Your task to perform on an android device: check the backup settings in the google photos Image 0: 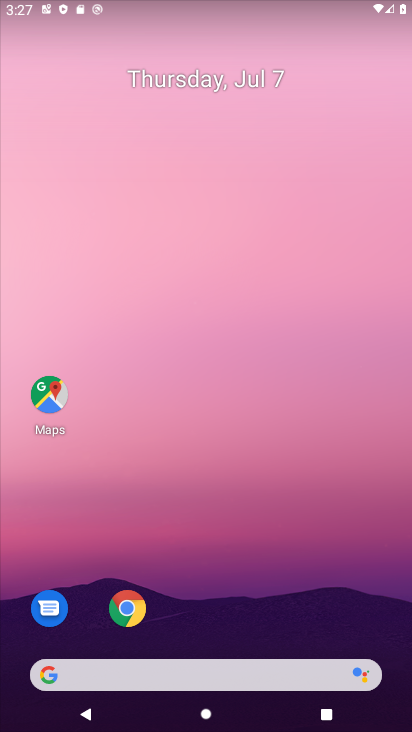
Step 0: drag from (353, 587) to (304, 143)
Your task to perform on an android device: check the backup settings in the google photos Image 1: 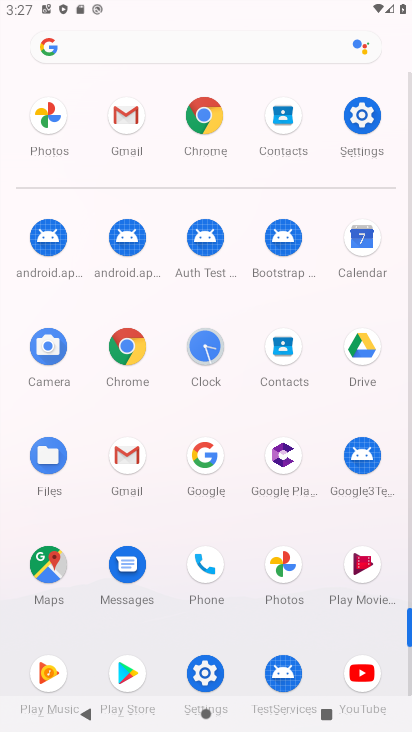
Step 1: click (285, 564)
Your task to perform on an android device: check the backup settings in the google photos Image 2: 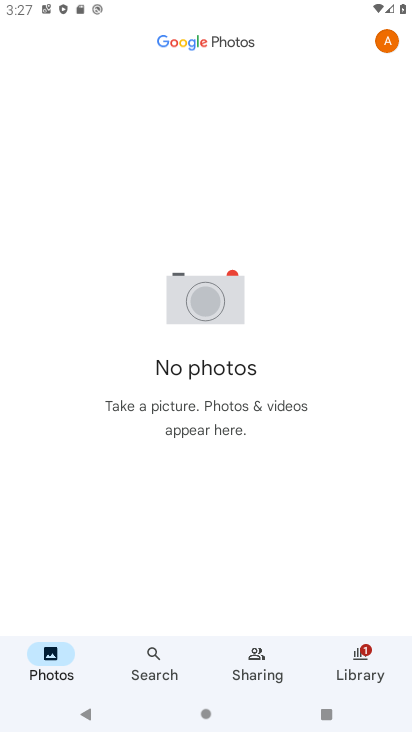
Step 2: click (386, 41)
Your task to perform on an android device: check the backup settings in the google photos Image 3: 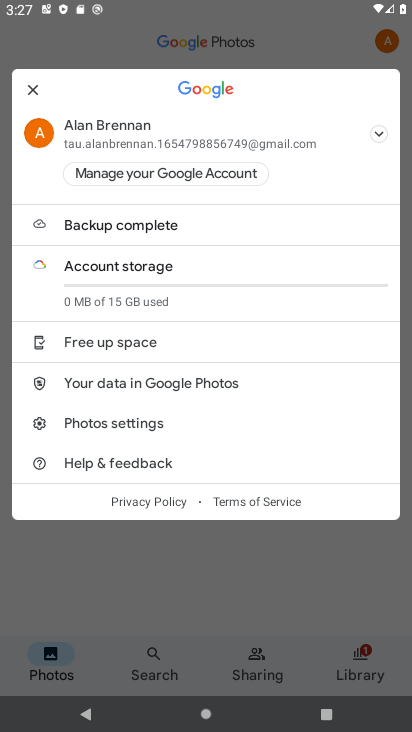
Step 3: click (107, 423)
Your task to perform on an android device: check the backup settings in the google photos Image 4: 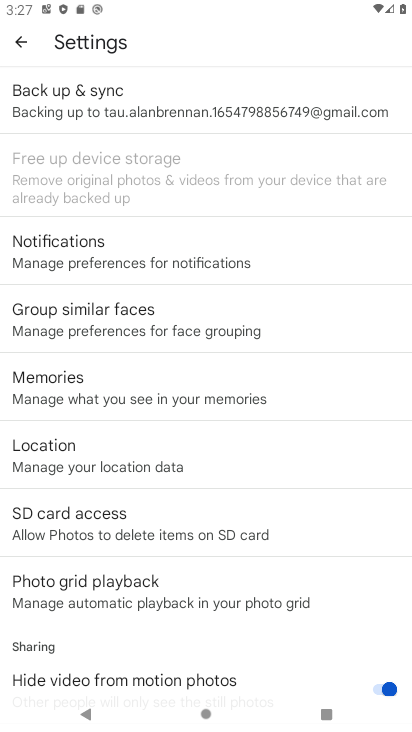
Step 4: click (73, 103)
Your task to perform on an android device: check the backup settings in the google photos Image 5: 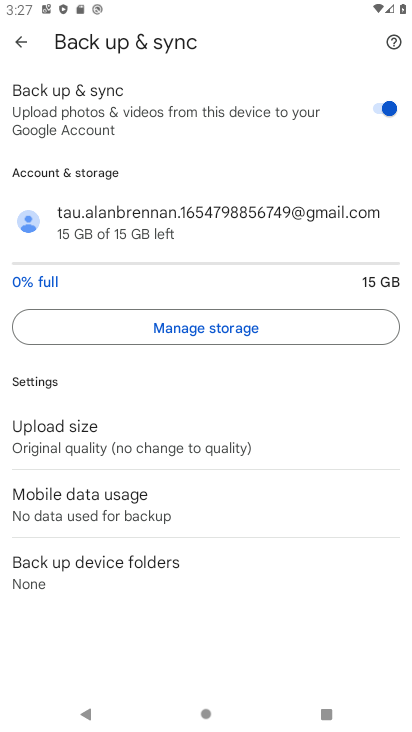
Step 5: task complete